Your task to perform on an android device: Go to privacy settings Image 0: 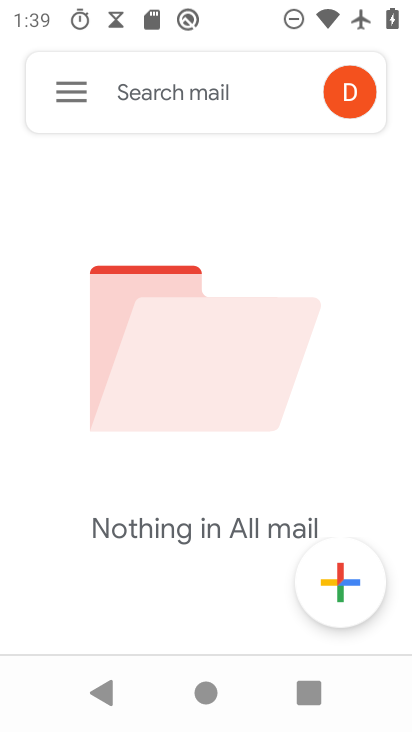
Step 0: press home button
Your task to perform on an android device: Go to privacy settings Image 1: 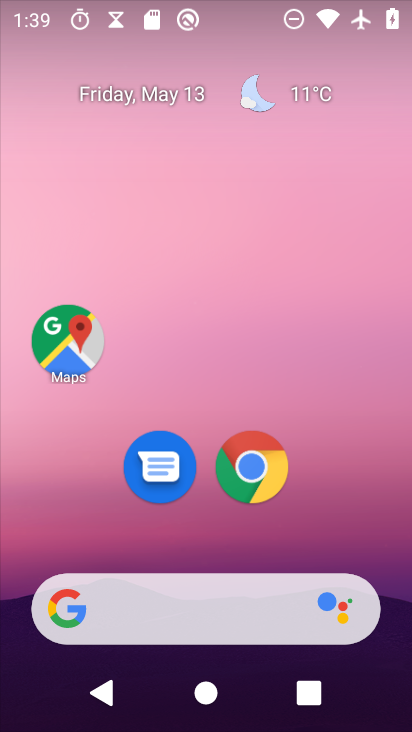
Step 1: drag from (314, 493) to (238, 42)
Your task to perform on an android device: Go to privacy settings Image 2: 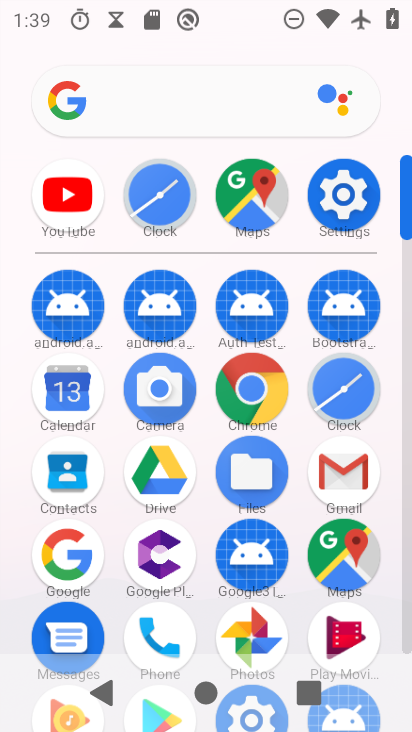
Step 2: click (348, 189)
Your task to perform on an android device: Go to privacy settings Image 3: 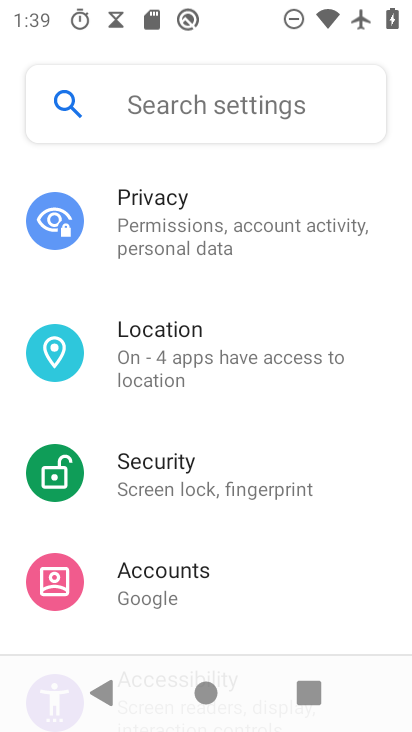
Step 3: click (193, 237)
Your task to perform on an android device: Go to privacy settings Image 4: 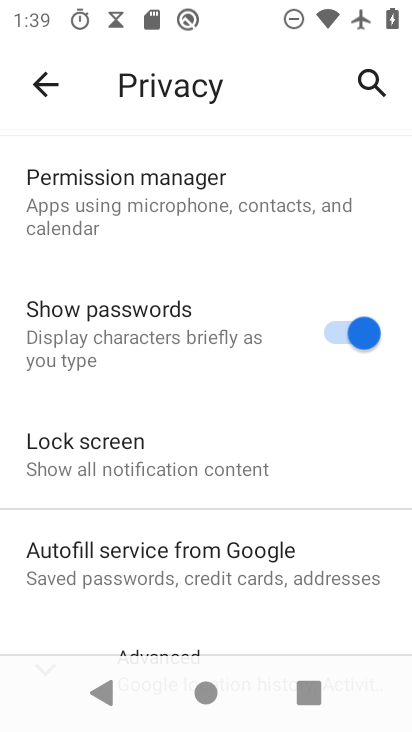
Step 4: task complete